Your task to perform on an android device: Is it going to rain today? Image 0: 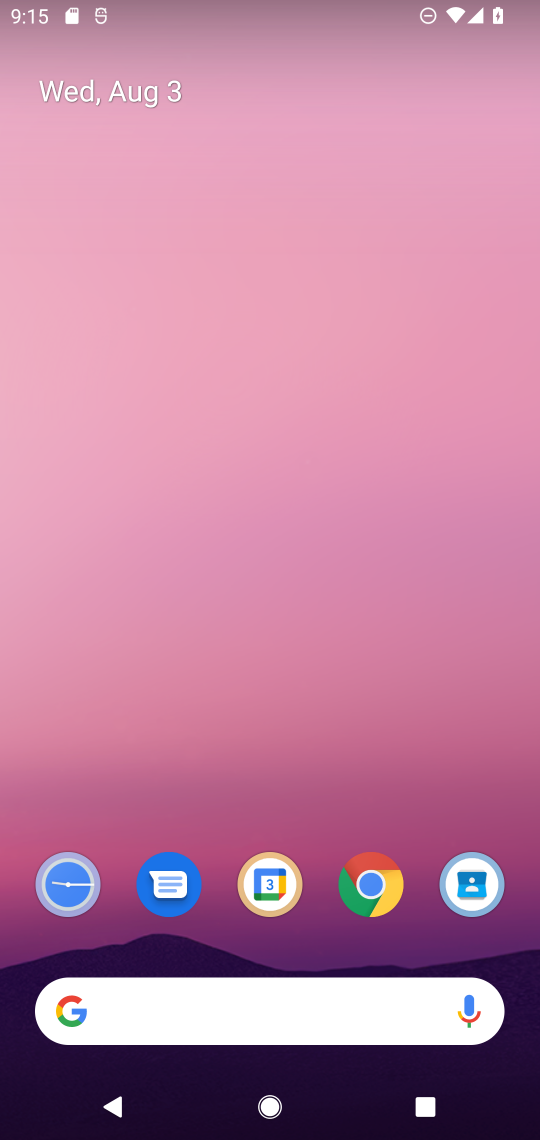
Step 0: click (142, 1012)
Your task to perform on an android device: Is it going to rain today? Image 1: 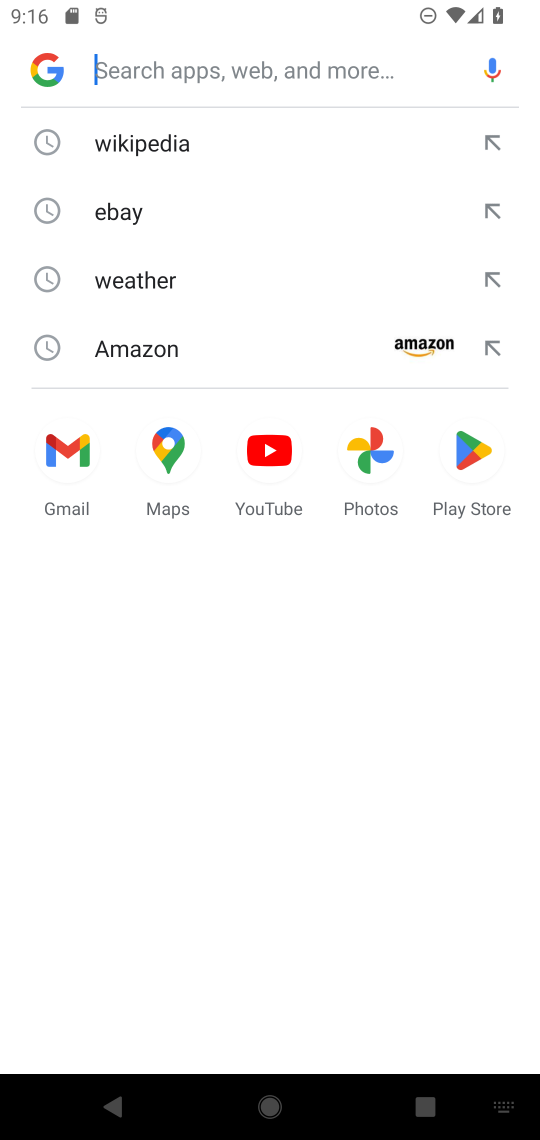
Step 1: type "Is it going to rain today?"
Your task to perform on an android device: Is it going to rain today? Image 2: 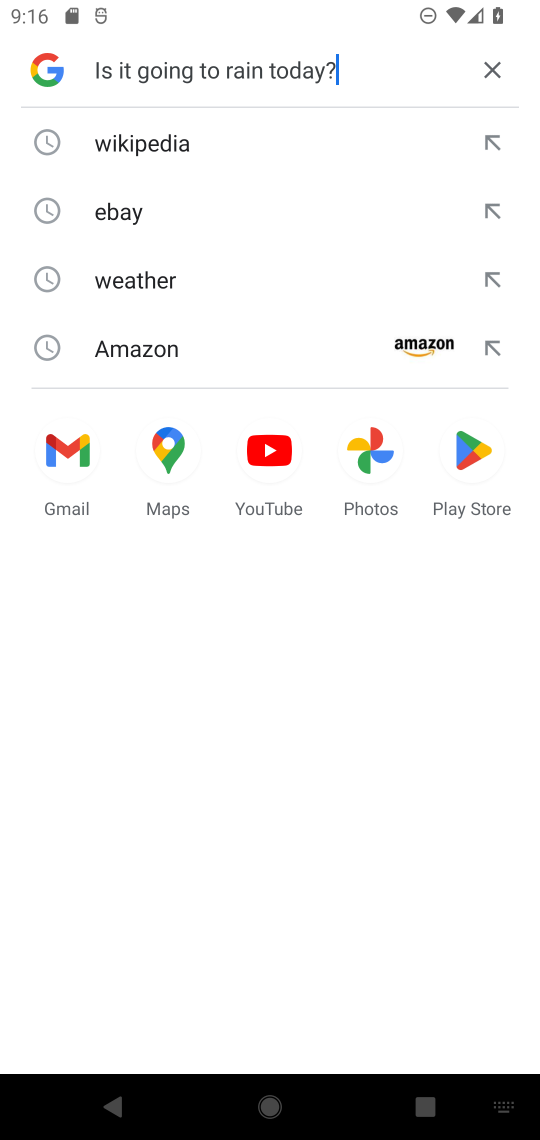
Step 2: type ""
Your task to perform on an android device: Is it going to rain today? Image 3: 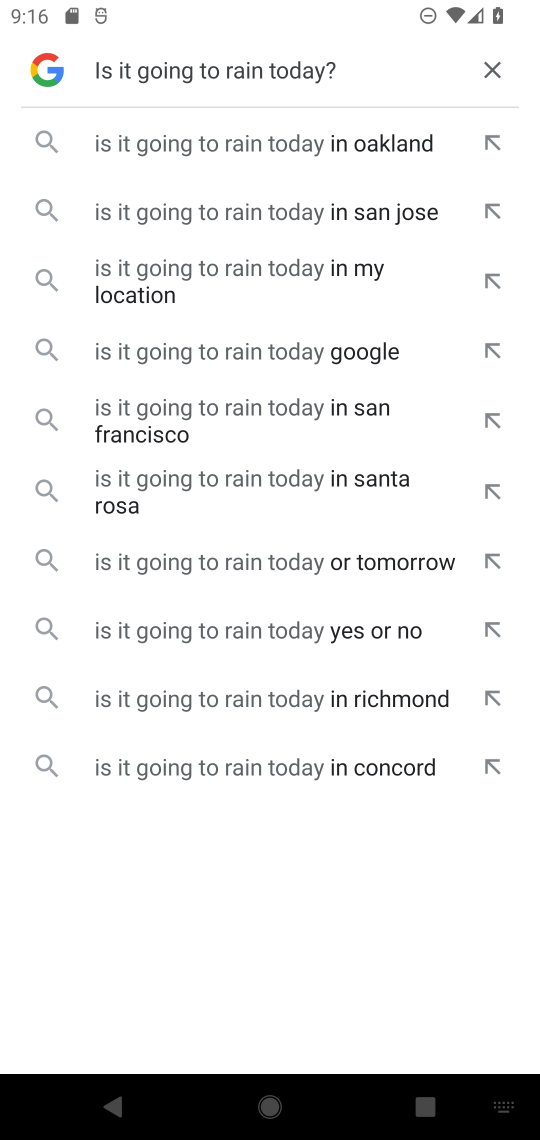
Step 3: type ""
Your task to perform on an android device: Is it going to rain today? Image 4: 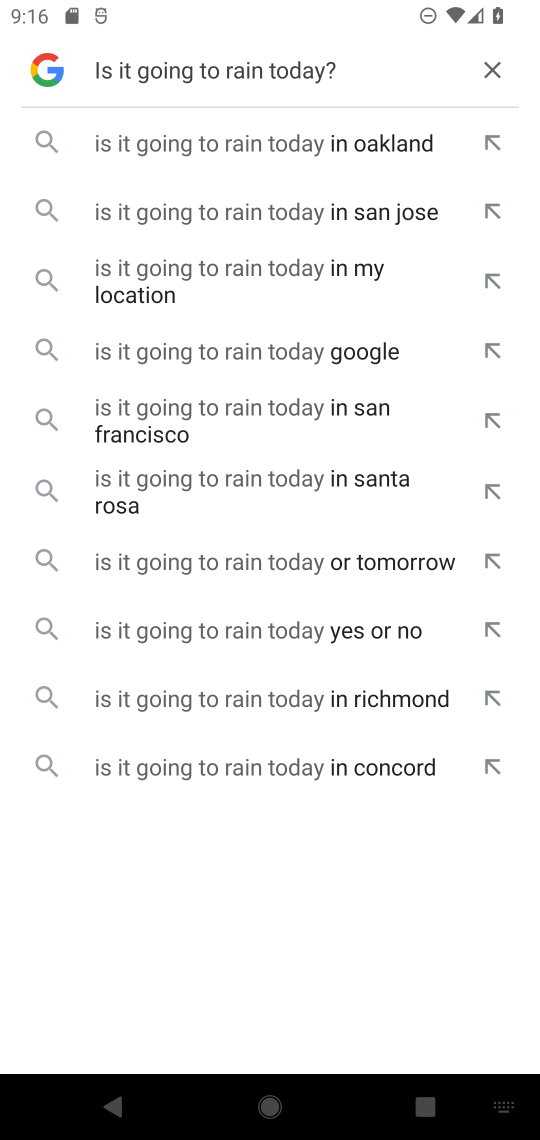
Step 4: task complete